Your task to perform on an android device: open chrome privacy settings Image 0: 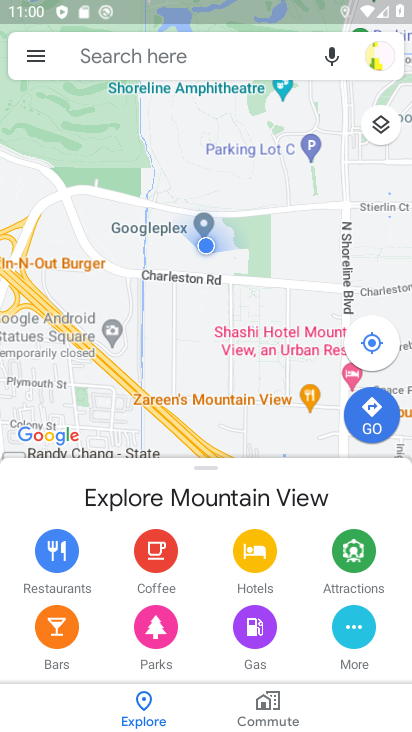
Step 0: press back button
Your task to perform on an android device: open chrome privacy settings Image 1: 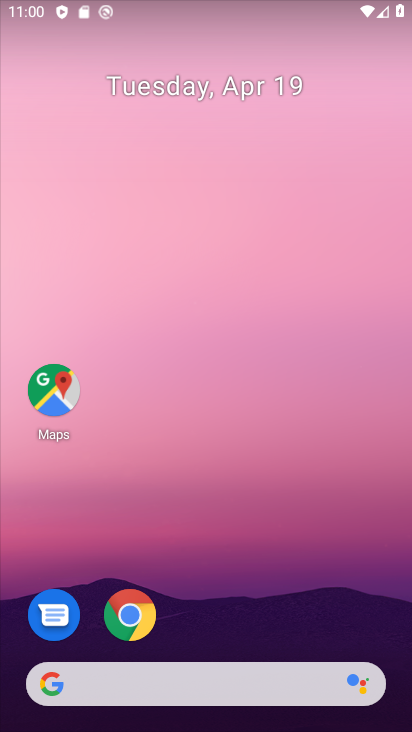
Step 1: click (126, 609)
Your task to perform on an android device: open chrome privacy settings Image 2: 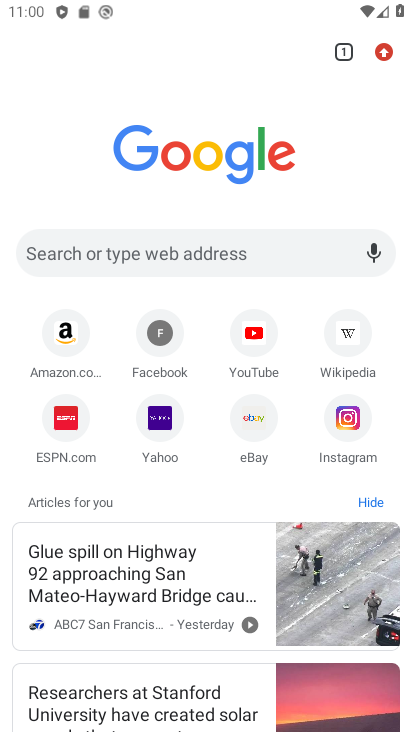
Step 2: click (381, 47)
Your task to perform on an android device: open chrome privacy settings Image 3: 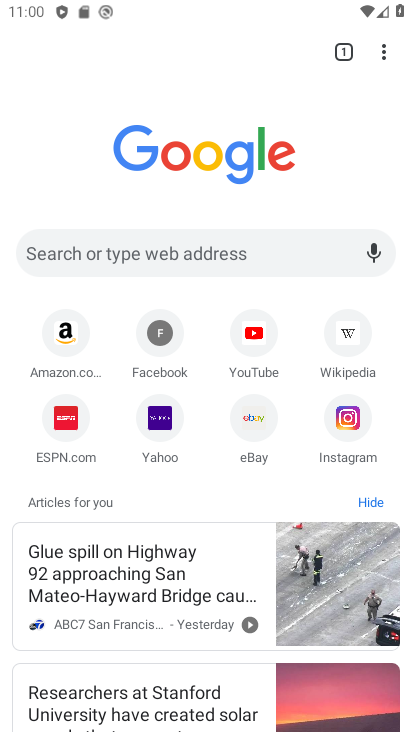
Step 3: click (388, 50)
Your task to perform on an android device: open chrome privacy settings Image 4: 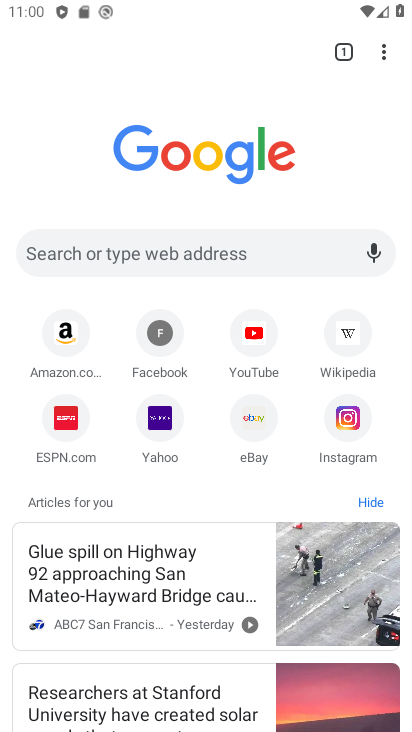
Step 4: click (385, 54)
Your task to perform on an android device: open chrome privacy settings Image 5: 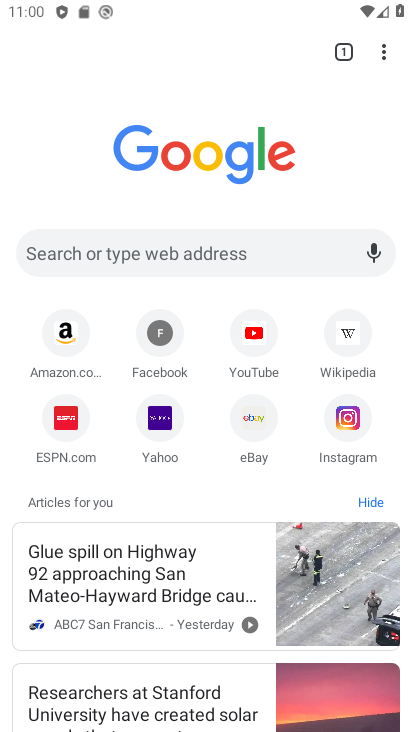
Step 5: click (385, 54)
Your task to perform on an android device: open chrome privacy settings Image 6: 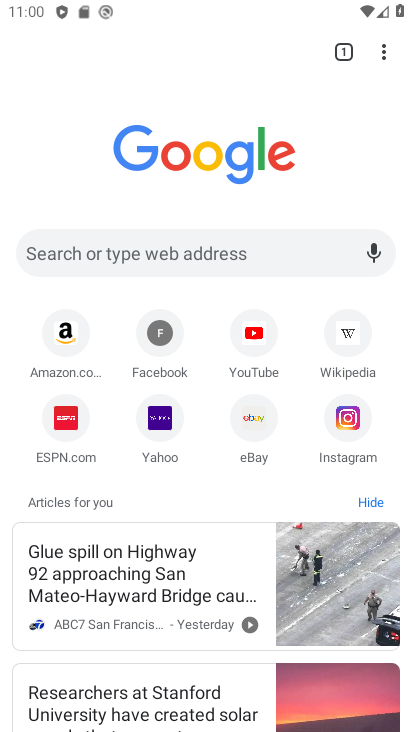
Step 6: click (385, 54)
Your task to perform on an android device: open chrome privacy settings Image 7: 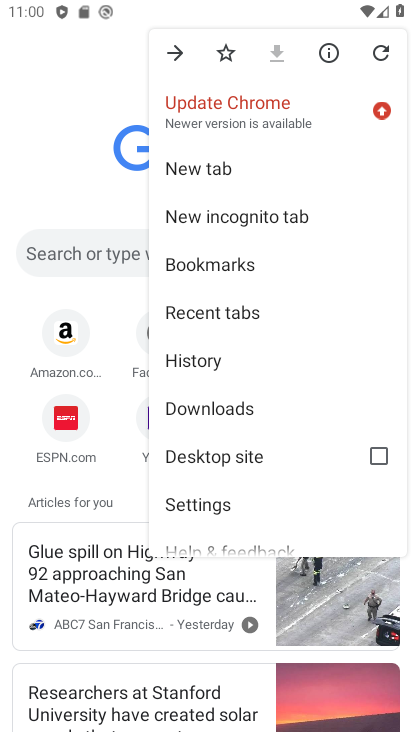
Step 7: click (223, 507)
Your task to perform on an android device: open chrome privacy settings Image 8: 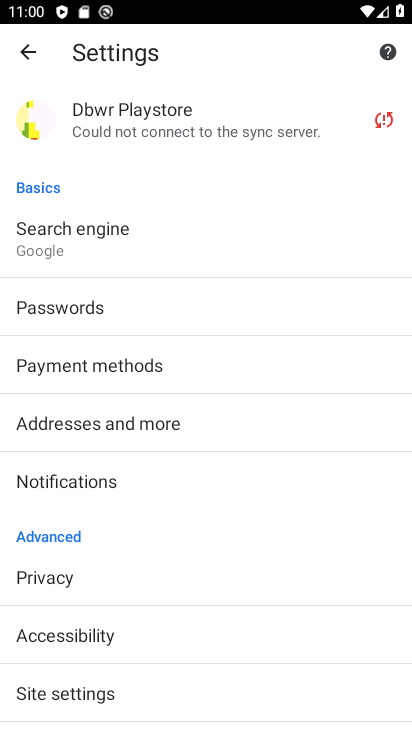
Step 8: click (57, 586)
Your task to perform on an android device: open chrome privacy settings Image 9: 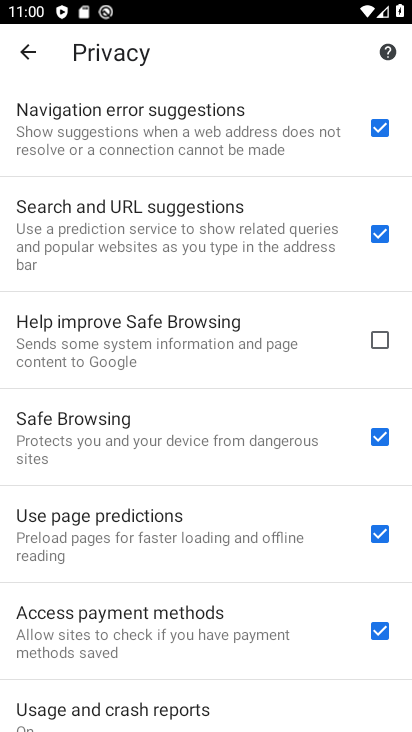
Step 9: task complete